Your task to perform on an android device: Show me popular games on the Play Store Image 0: 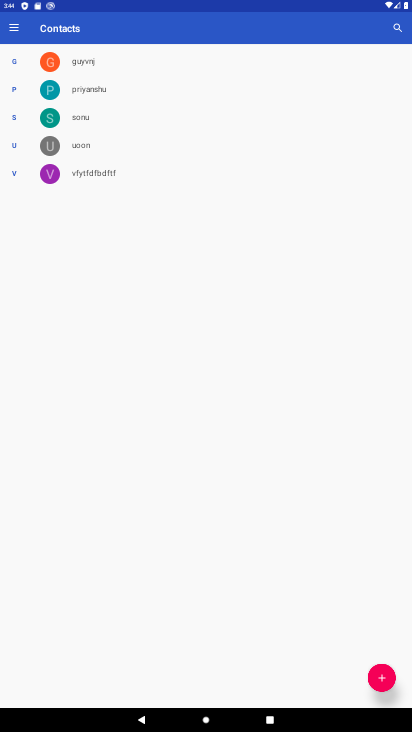
Step 0: press home button
Your task to perform on an android device: Show me popular games on the Play Store Image 1: 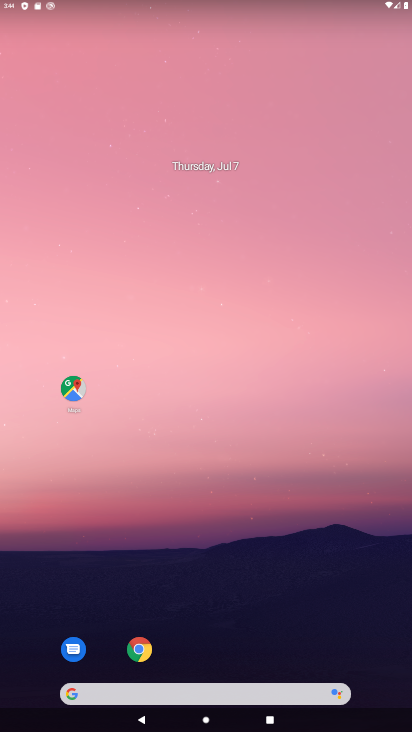
Step 1: drag from (376, 648) to (336, 149)
Your task to perform on an android device: Show me popular games on the Play Store Image 2: 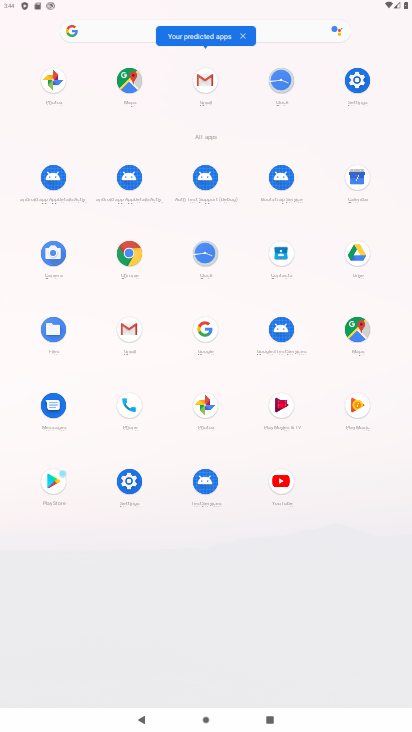
Step 2: click (52, 479)
Your task to perform on an android device: Show me popular games on the Play Store Image 3: 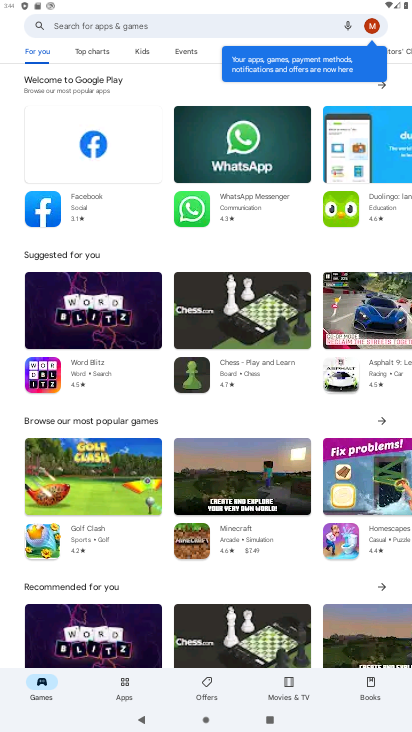
Step 3: click (124, 686)
Your task to perform on an android device: Show me popular games on the Play Store Image 4: 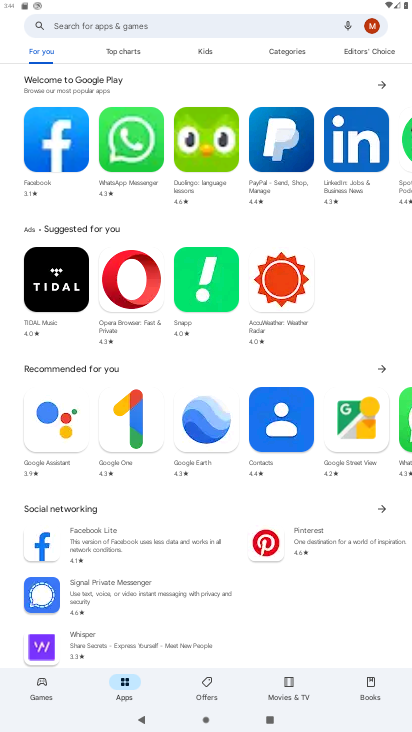
Step 4: click (42, 686)
Your task to perform on an android device: Show me popular games on the Play Store Image 5: 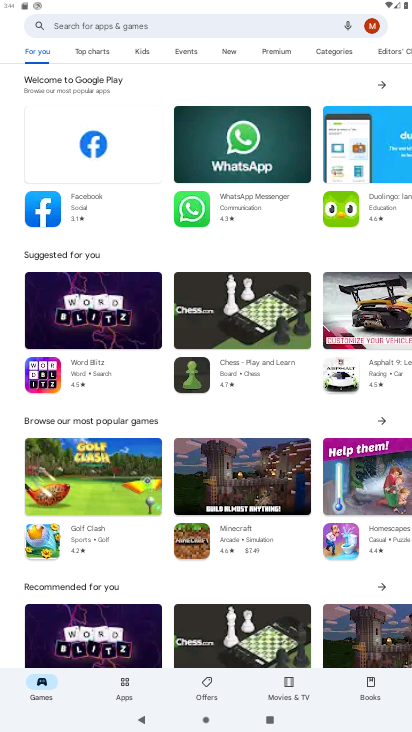
Step 5: click (379, 419)
Your task to perform on an android device: Show me popular games on the Play Store Image 6: 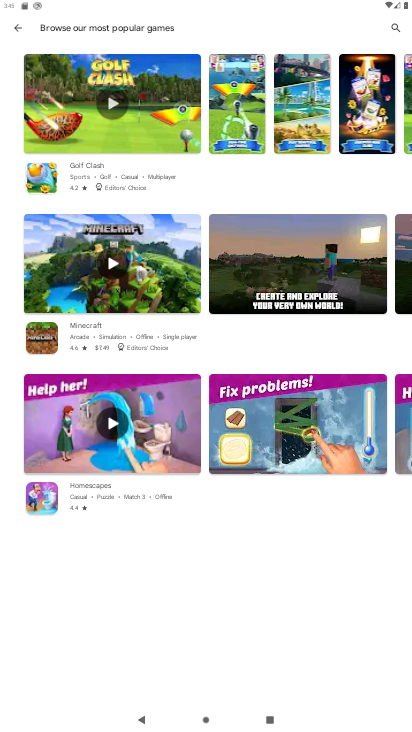
Step 6: task complete